Your task to perform on an android device: Open the Play Movies app and select the watchlist tab. Image 0: 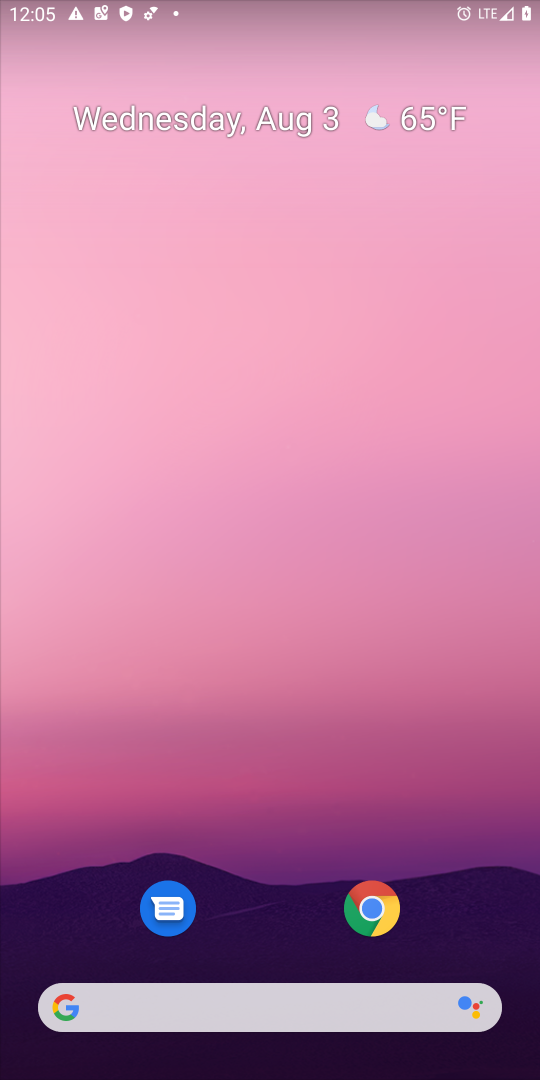
Step 0: drag from (323, 611) to (395, 0)
Your task to perform on an android device: Open the Play Movies app and select the watchlist tab. Image 1: 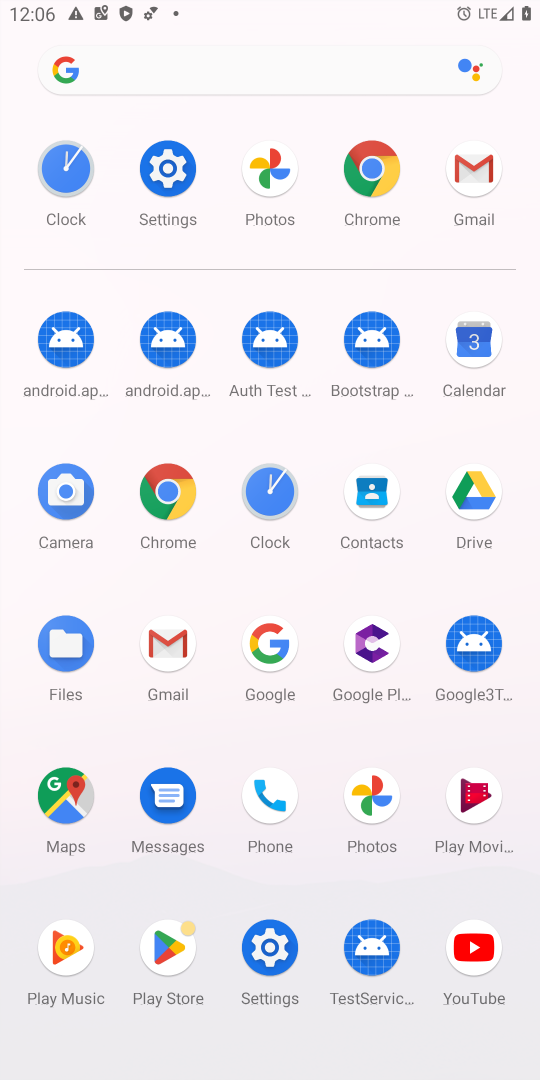
Step 1: click (470, 805)
Your task to perform on an android device: Open the Play Movies app and select the watchlist tab. Image 2: 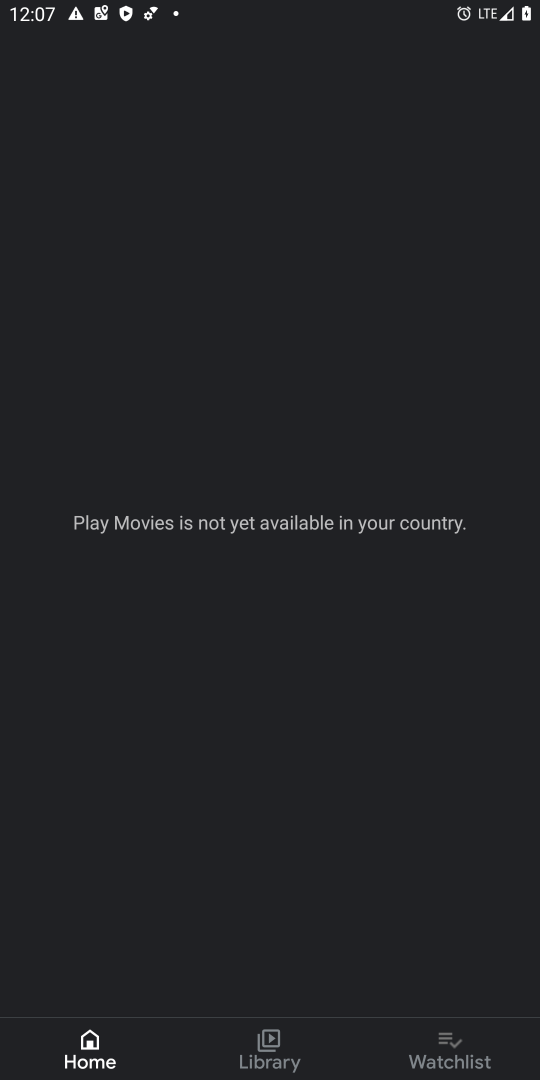
Step 2: click (433, 1053)
Your task to perform on an android device: Open the Play Movies app and select the watchlist tab. Image 3: 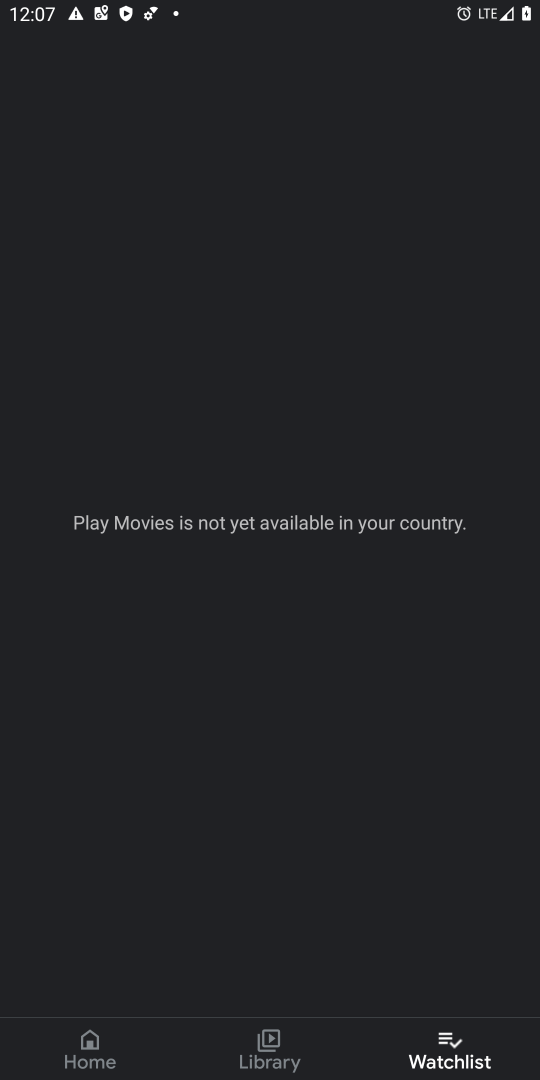
Step 3: task complete